Your task to perform on an android device: Open the calendar and show me this week's events? Image 0: 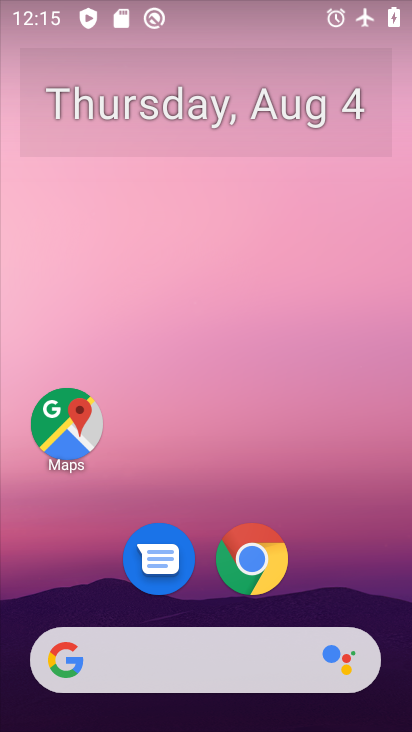
Step 0: press home button
Your task to perform on an android device: Open the calendar and show me this week's events? Image 1: 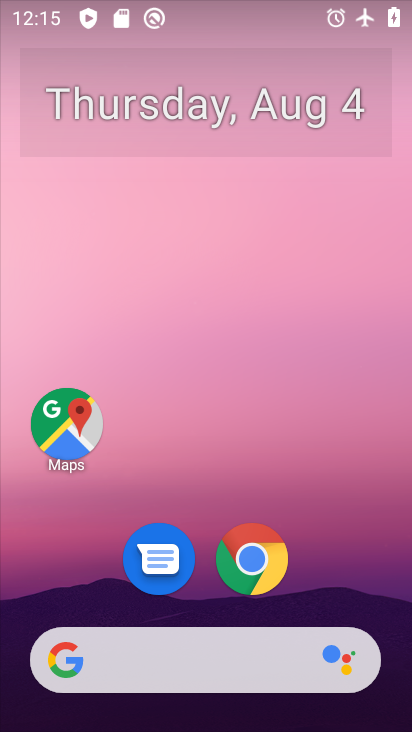
Step 1: drag from (227, 656) to (194, 231)
Your task to perform on an android device: Open the calendar and show me this week's events? Image 2: 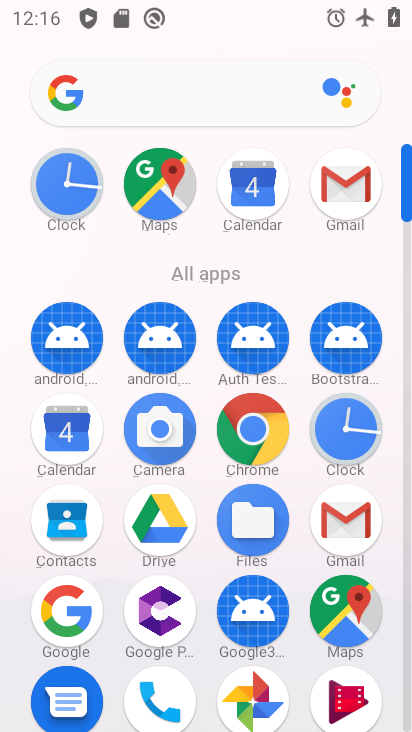
Step 2: drag from (206, 575) to (204, 229)
Your task to perform on an android device: Open the calendar and show me this week's events? Image 3: 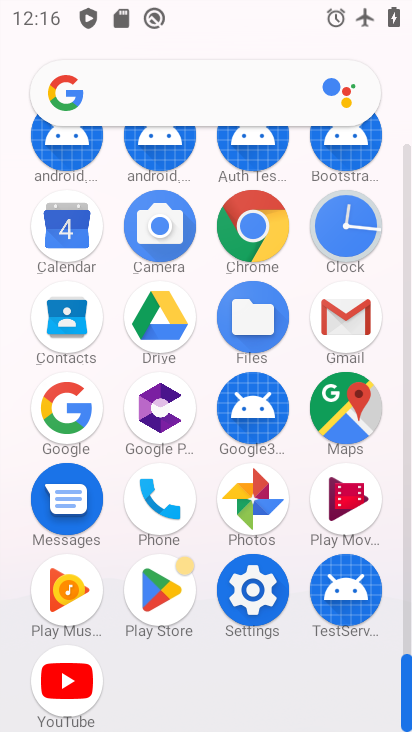
Step 3: click (68, 230)
Your task to perform on an android device: Open the calendar and show me this week's events? Image 4: 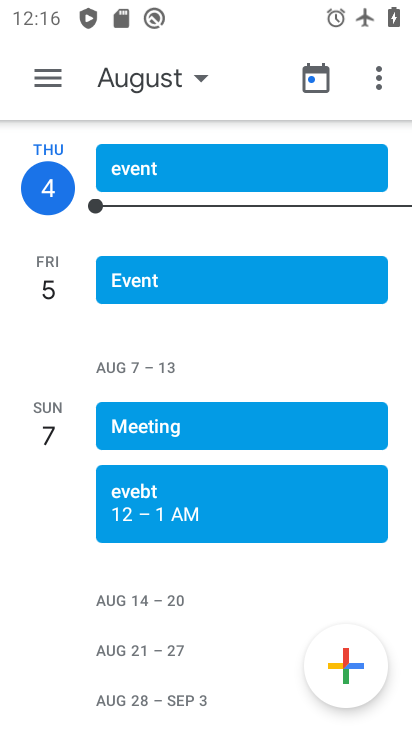
Step 4: task complete